Your task to perform on an android device: change the clock display to show seconds Image 0: 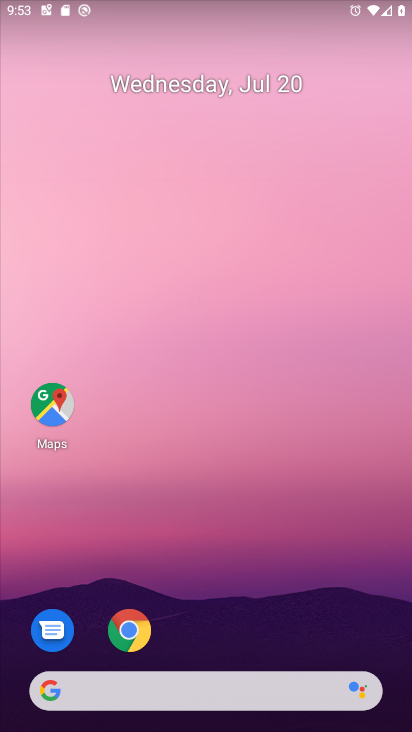
Step 0: drag from (188, 683) to (205, 203)
Your task to perform on an android device: change the clock display to show seconds Image 1: 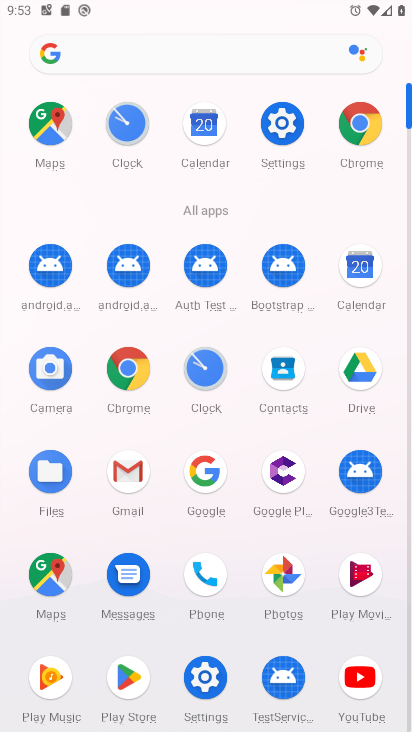
Step 1: click (209, 376)
Your task to perform on an android device: change the clock display to show seconds Image 2: 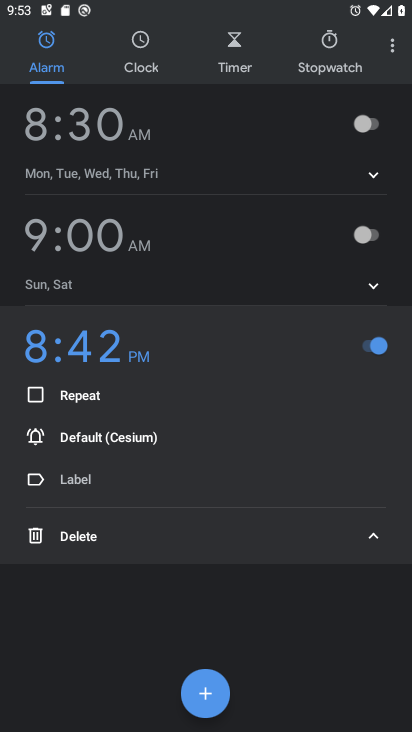
Step 2: click (393, 47)
Your task to perform on an android device: change the clock display to show seconds Image 3: 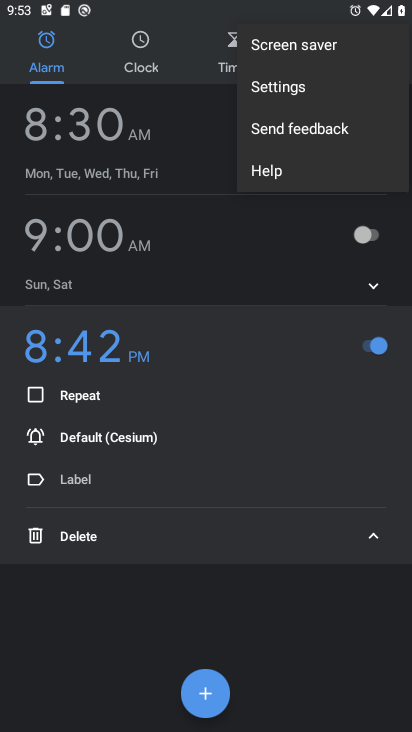
Step 3: click (323, 84)
Your task to perform on an android device: change the clock display to show seconds Image 4: 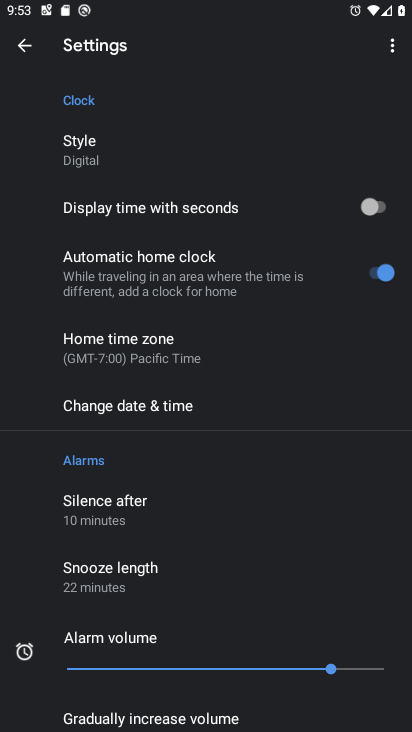
Step 4: click (371, 207)
Your task to perform on an android device: change the clock display to show seconds Image 5: 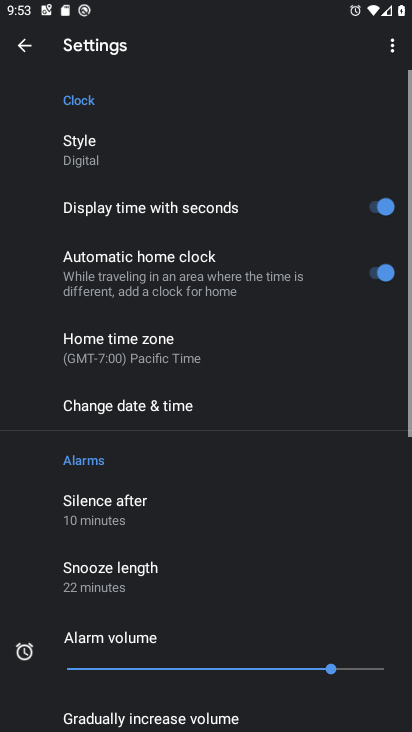
Step 5: task complete